Your task to perform on an android device: Go to settings Image 0: 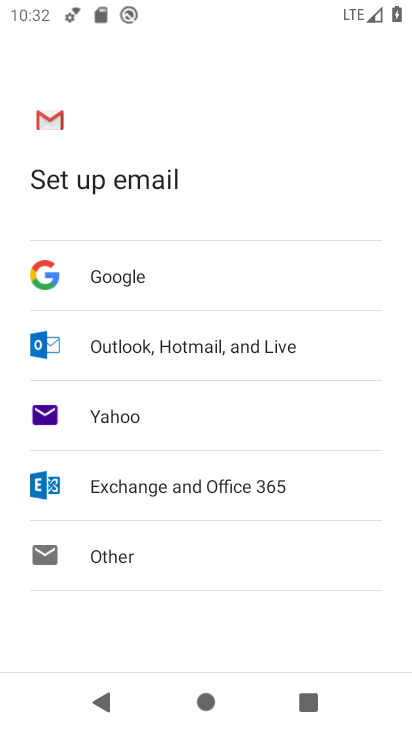
Step 0: press home button
Your task to perform on an android device: Go to settings Image 1: 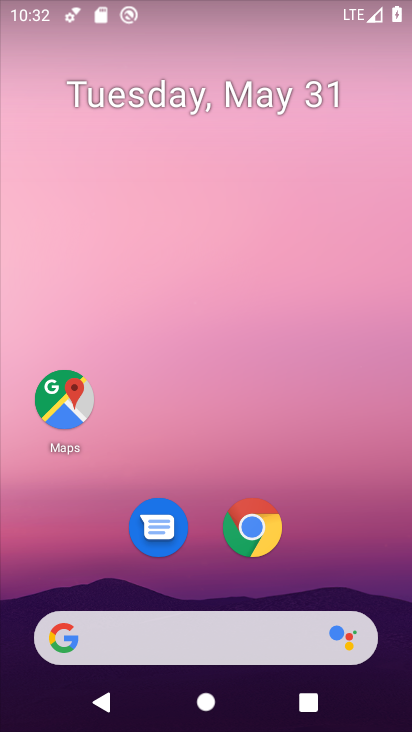
Step 1: drag from (346, 588) to (350, 25)
Your task to perform on an android device: Go to settings Image 2: 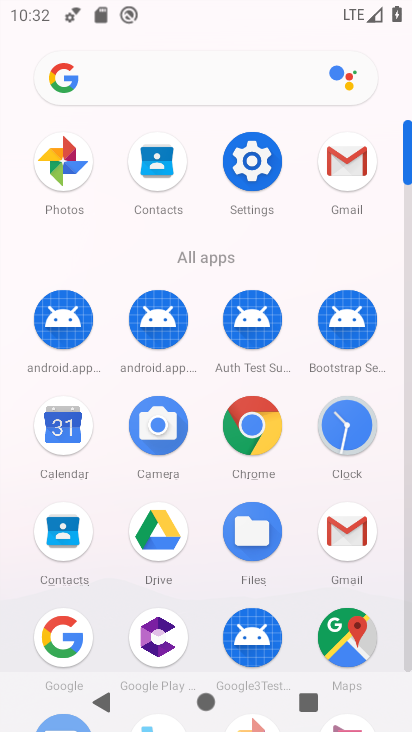
Step 2: click (246, 171)
Your task to perform on an android device: Go to settings Image 3: 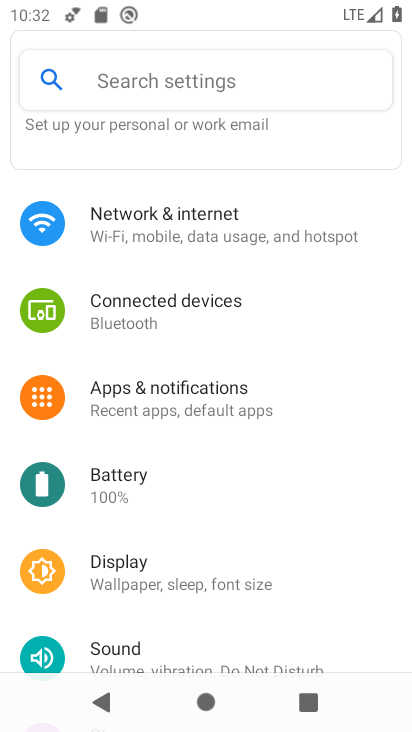
Step 3: task complete